Your task to perform on an android device: turn on notifications settings in the gmail app Image 0: 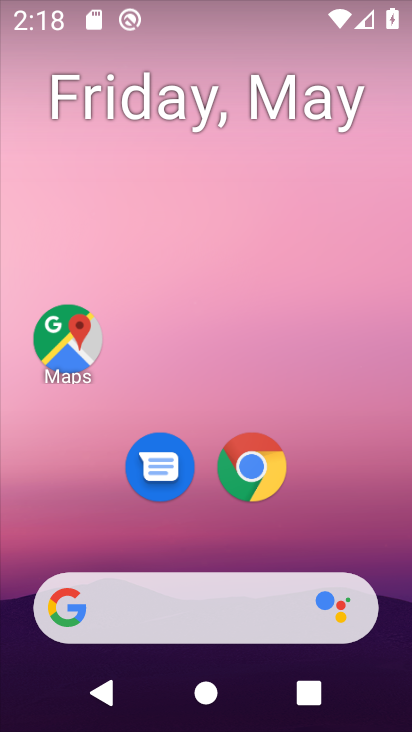
Step 0: drag from (284, 548) to (337, 176)
Your task to perform on an android device: turn on notifications settings in the gmail app Image 1: 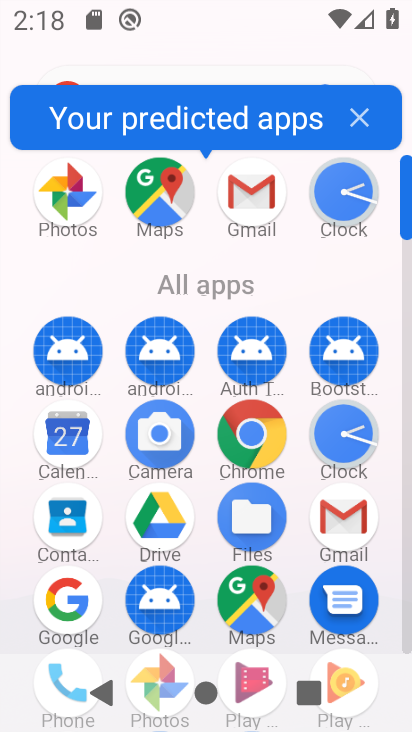
Step 1: click (344, 509)
Your task to perform on an android device: turn on notifications settings in the gmail app Image 2: 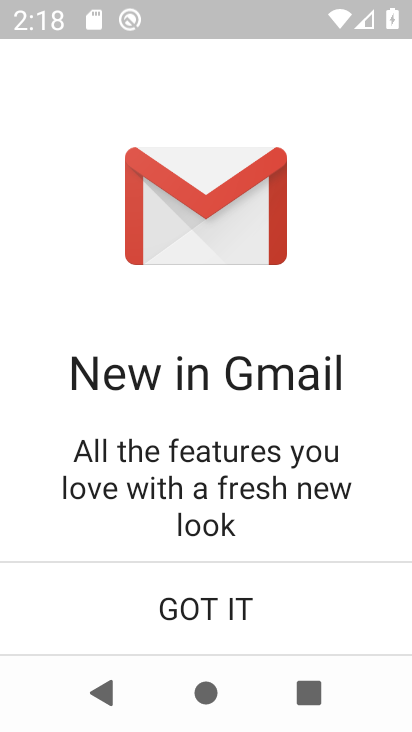
Step 2: click (250, 610)
Your task to perform on an android device: turn on notifications settings in the gmail app Image 3: 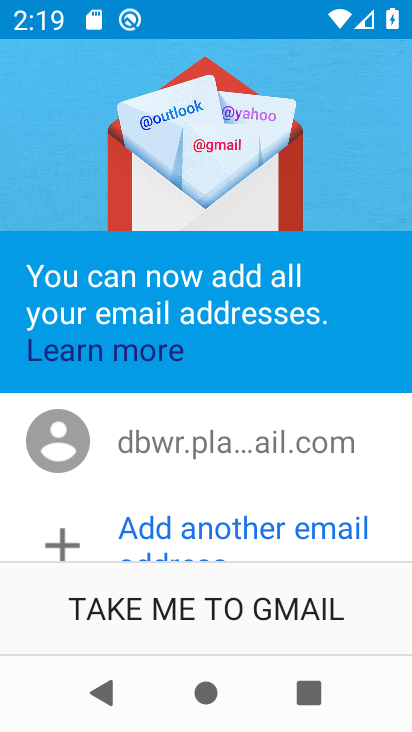
Step 3: click (232, 601)
Your task to perform on an android device: turn on notifications settings in the gmail app Image 4: 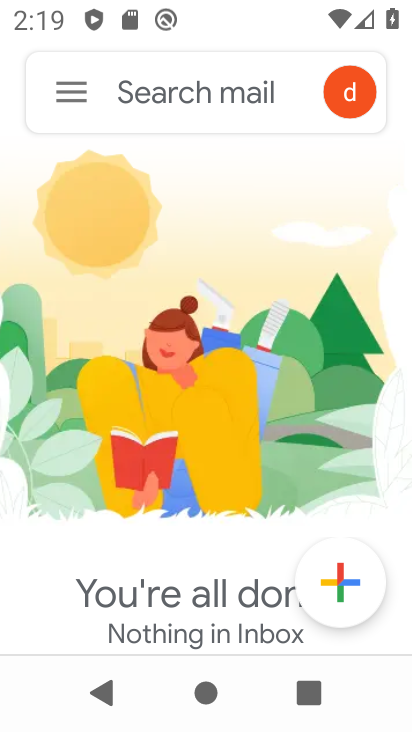
Step 4: click (75, 100)
Your task to perform on an android device: turn on notifications settings in the gmail app Image 5: 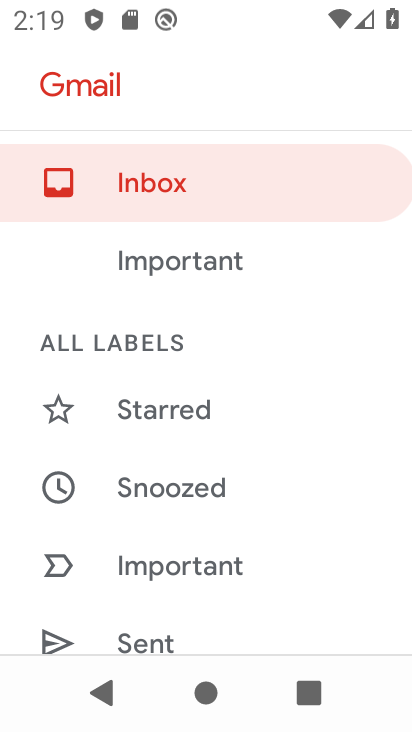
Step 5: drag from (146, 605) to (177, 179)
Your task to perform on an android device: turn on notifications settings in the gmail app Image 6: 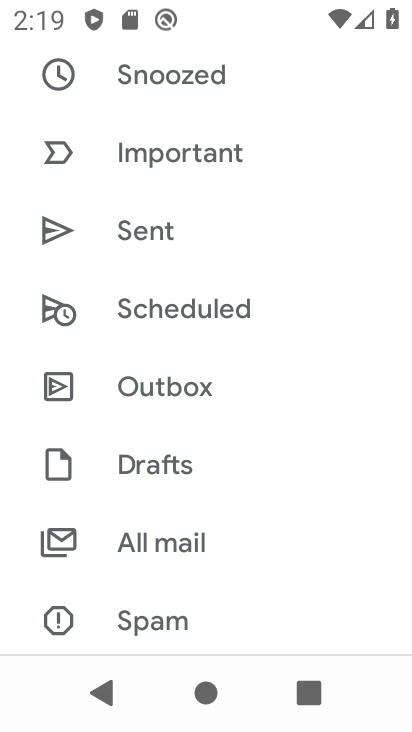
Step 6: drag from (218, 611) to (223, 267)
Your task to perform on an android device: turn on notifications settings in the gmail app Image 7: 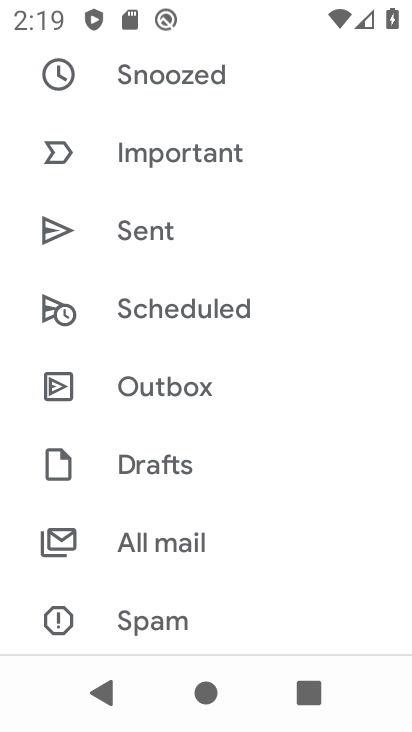
Step 7: drag from (160, 626) to (172, 266)
Your task to perform on an android device: turn on notifications settings in the gmail app Image 8: 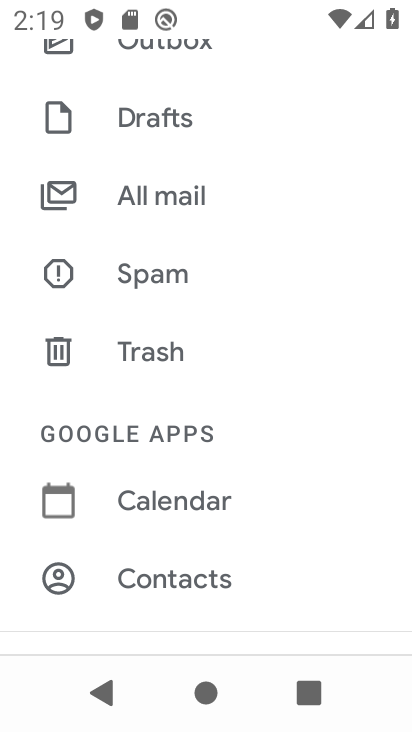
Step 8: drag from (156, 617) to (149, 235)
Your task to perform on an android device: turn on notifications settings in the gmail app Image 9: 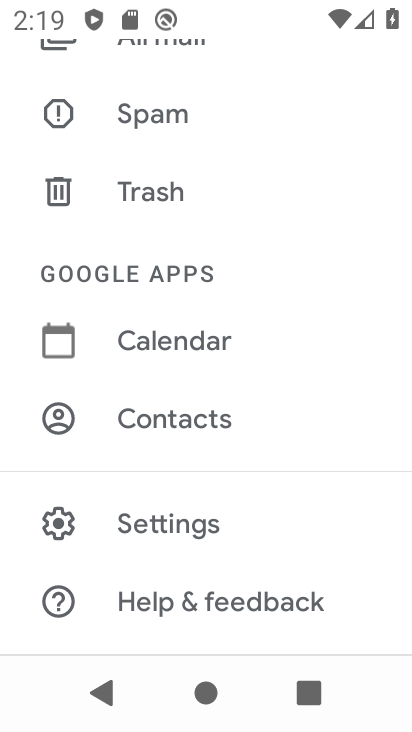
Step 9: click (144, 526)
Your task to perform on an android device: turn on notifications settings in the gmail app Image 10: 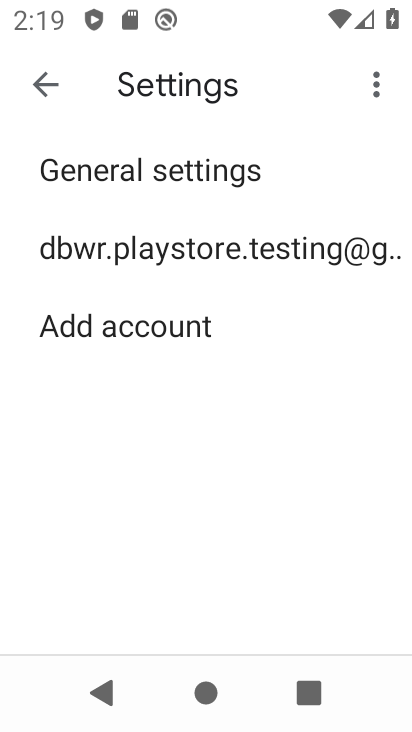
Step 10: click (198, 250)
Your task to perform on an android device: turn on notifications settings in the gmail app Image 11: 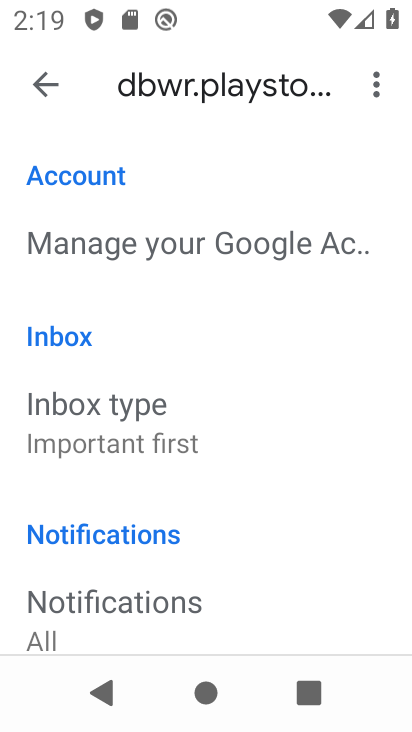
Step 11: drag from (138, 635) to (140, 219)
Your task to perform on an android device: turn on notifications settings in the gmail app Image 12: 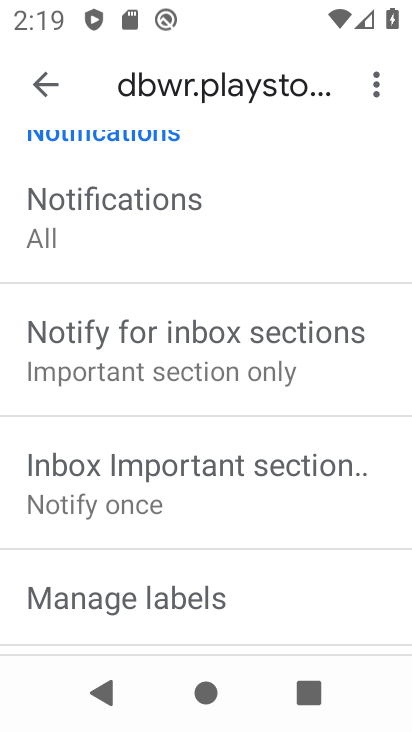
Step 12: click (52, 70)
Your task to perform on an android device: turn on notifications settings in the gmail app Image 13: 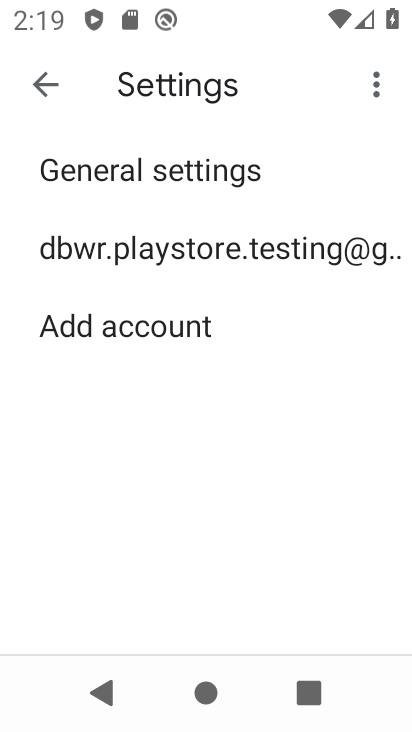
Step 13: click (103, 179)
Your task to perform on an android device: turn on notifications settings in the gmail app Image 14: 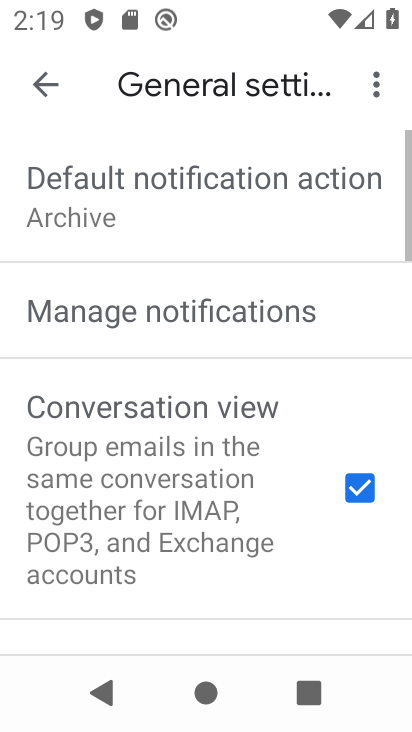
Step 14: click (161, 318)
Your task to perform on an android device: turn on notifications settings in the gmail app Image 15: 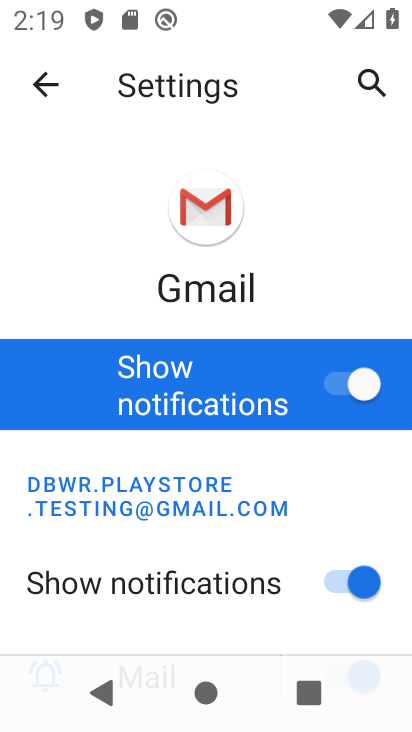
Step 15: task complete